Your task to perform on an android device: Open Google Image 0: 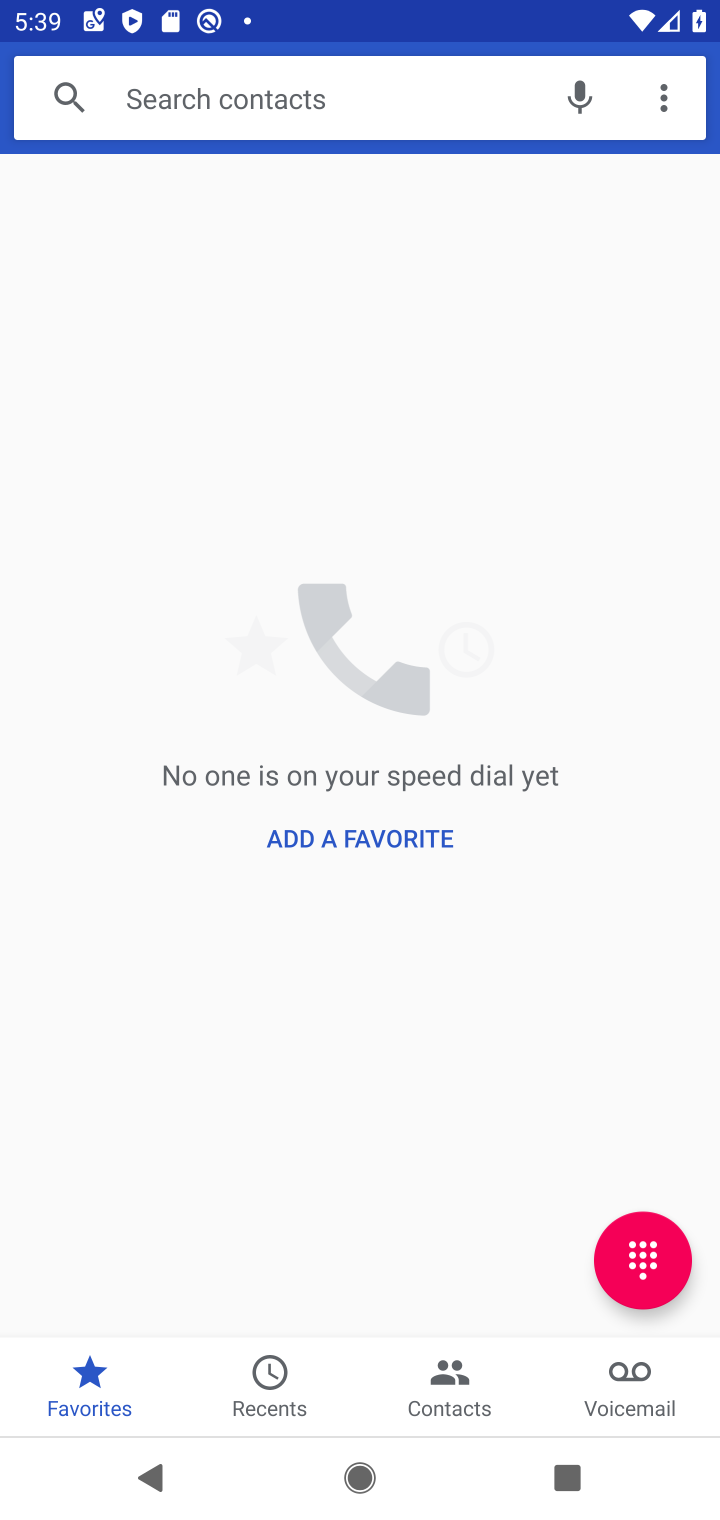
Step 0: press home button
Your task to perform on an android device: Open Google Image 1: 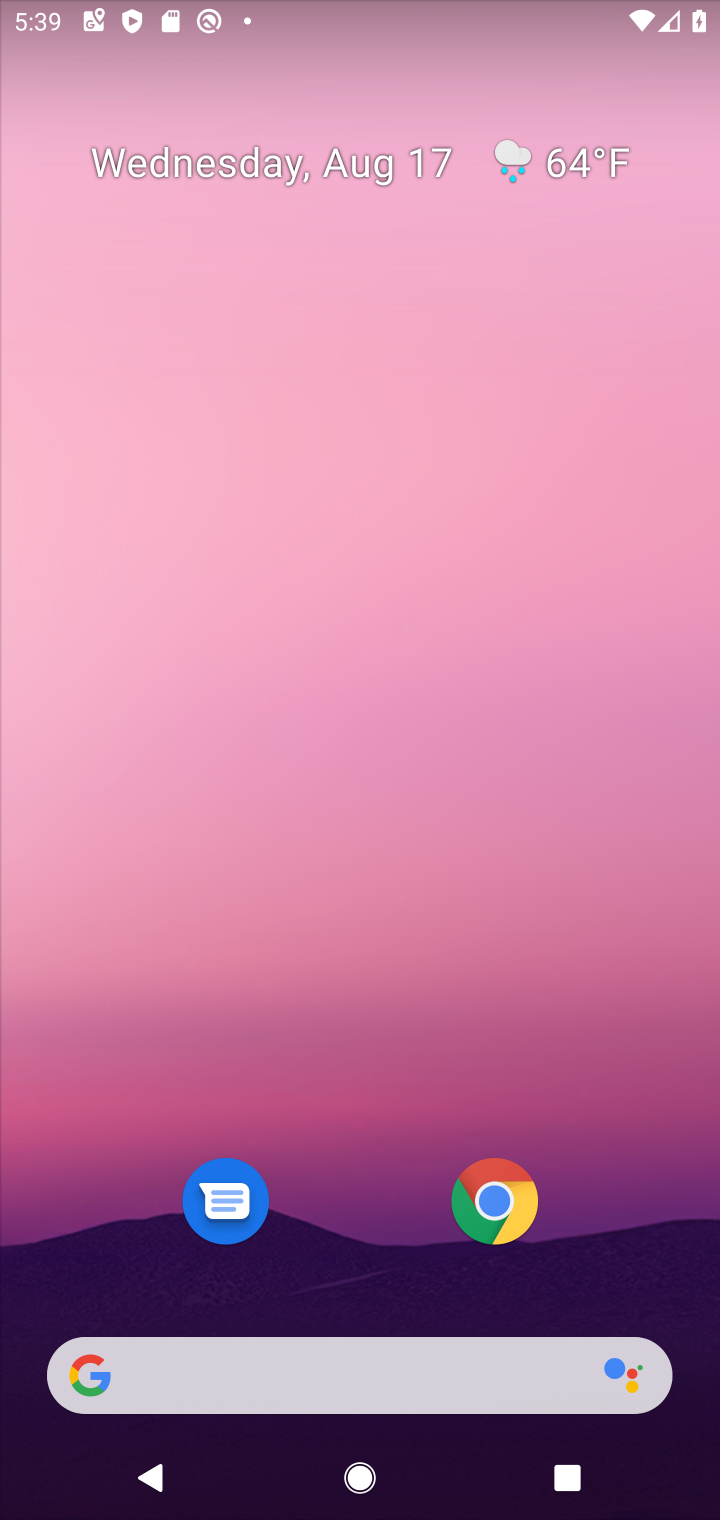
Step 1: drag from (398, 1236) to (388, 122)
Your task to perform on an android device: Open Google Image 2: 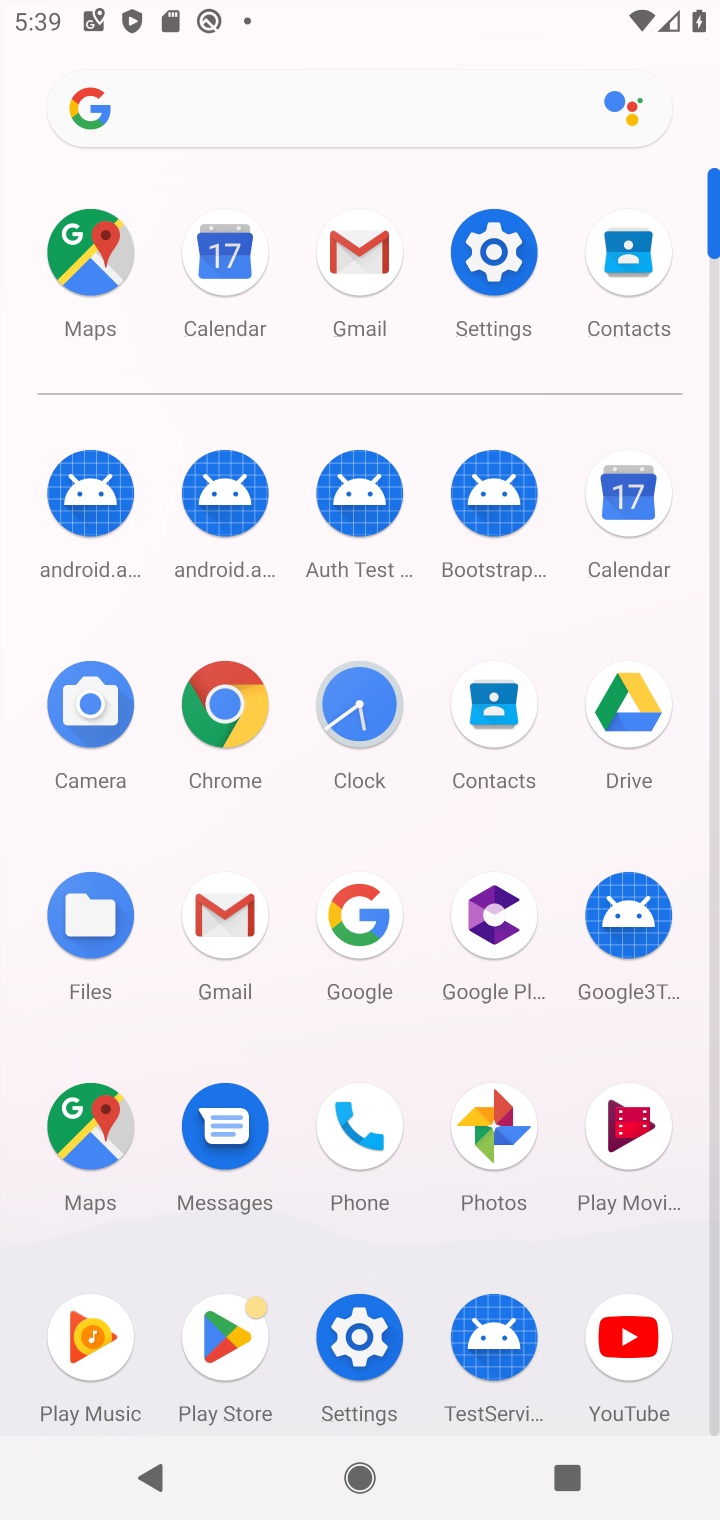
Step 2: click (365, 915)
Your task to perform on an android device: Open Google Image 3: 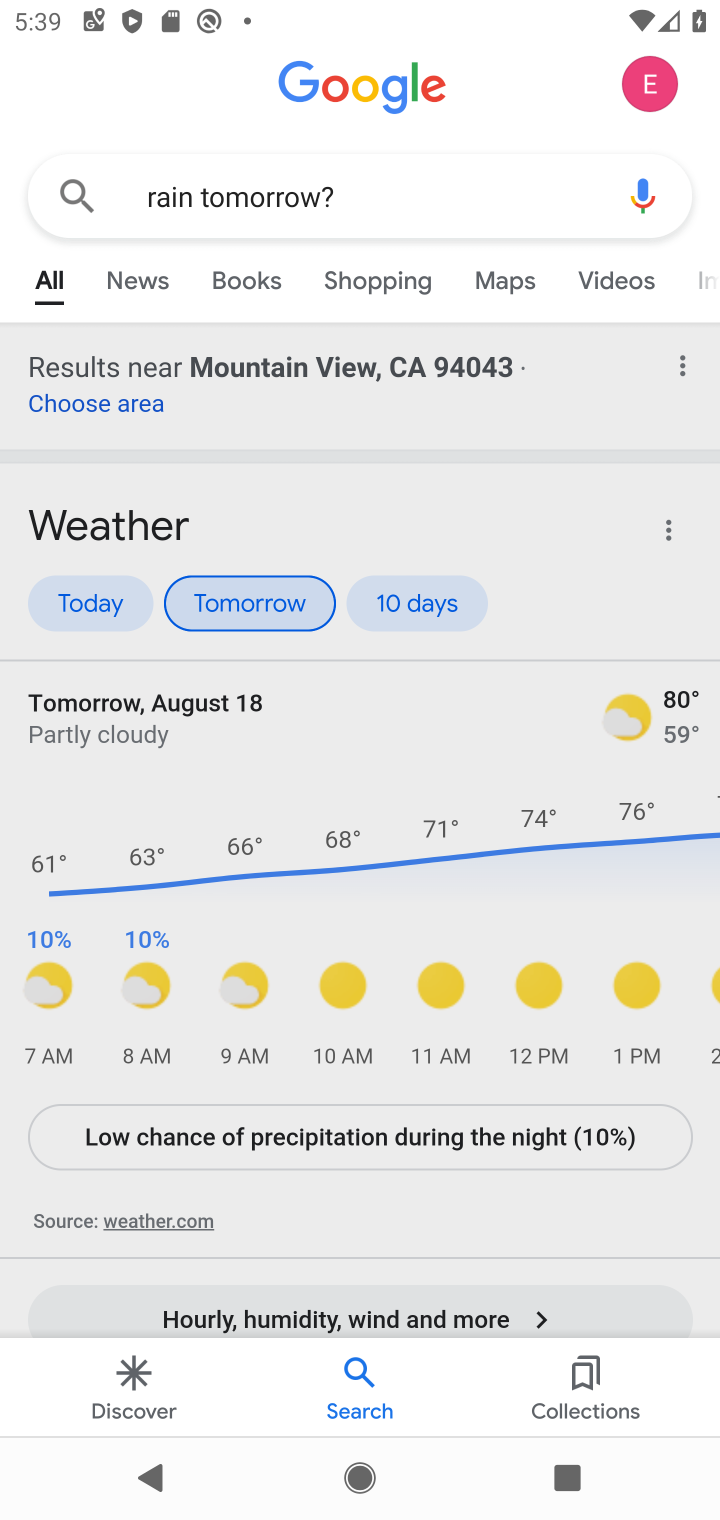
Step 3: click (305, 77)
Your task to perform on an android device: Open Google Image 4: 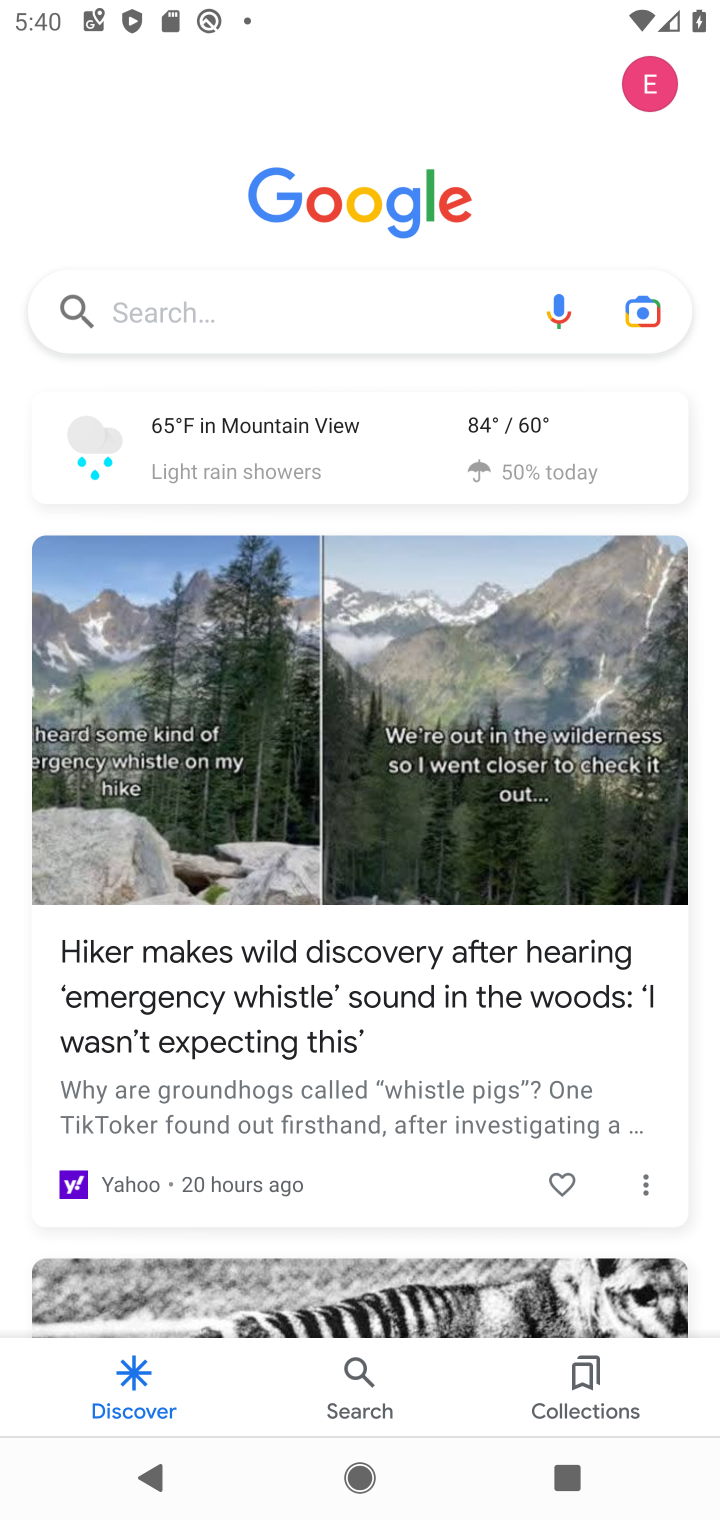
Step 4: task complete